Your task to perform on an android device: set default search engine in the chrome app Image 0: 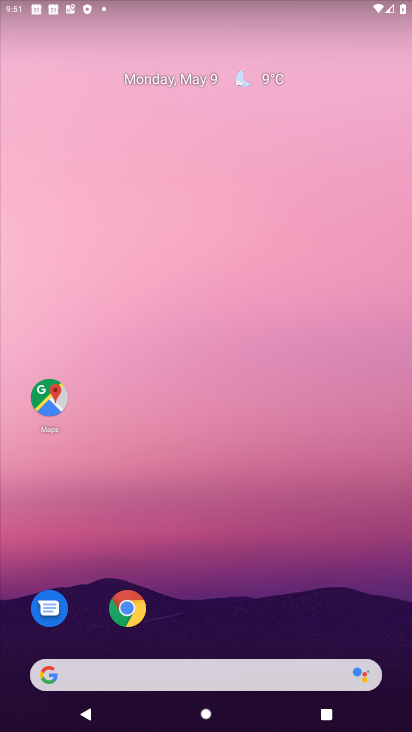
Step 0: drag from (283, 486) to (347, 30)
Your task to perform on an android device: set default search engine in the chrome app Image 1: 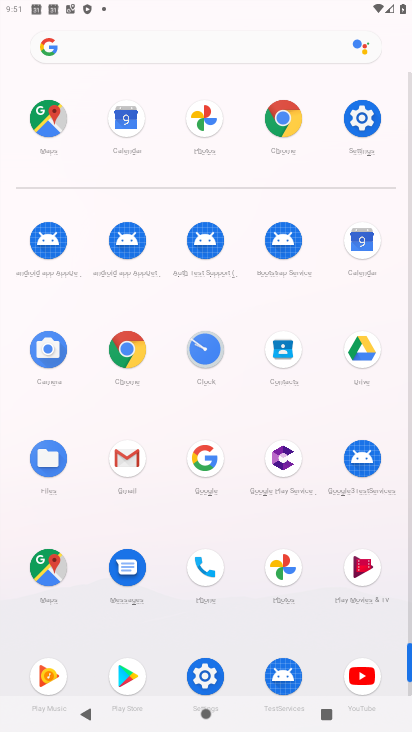
Step 1: click (270, 126)
Your task to perform on an android device: set default search engine in the chrome app Image 2: 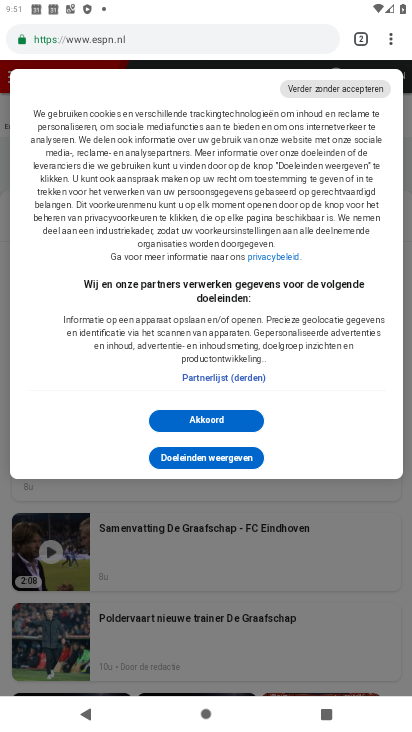
Step 2: drag from (393, 40) to (242, 444)
Your task to perform on an android device: set default search engine in the chrome app Image 3: 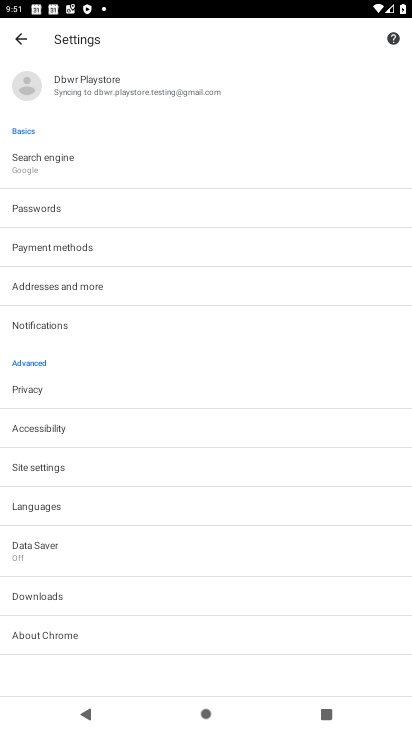
Step 3: click (51, 155)
Your task to perform on an android device: set default search engine in the chrome app Image 4: 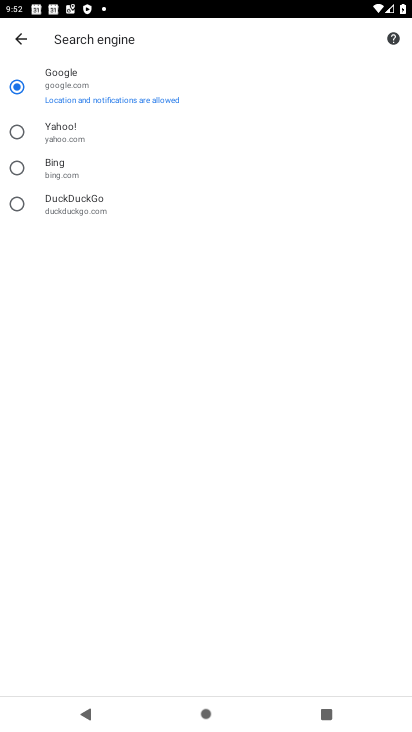
Step 4: task complete